Your task to perform on an android device: see sites visited before in the chrome app Image 0: 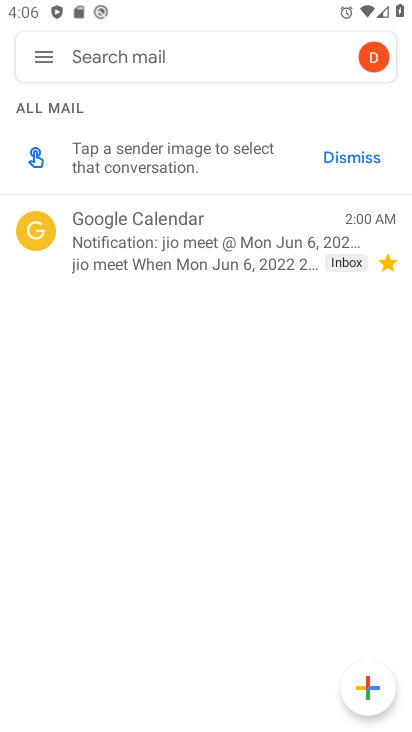
Step 0: press home button
Your task to perform on an android device: see sites visited before in the chrome app Image 1: 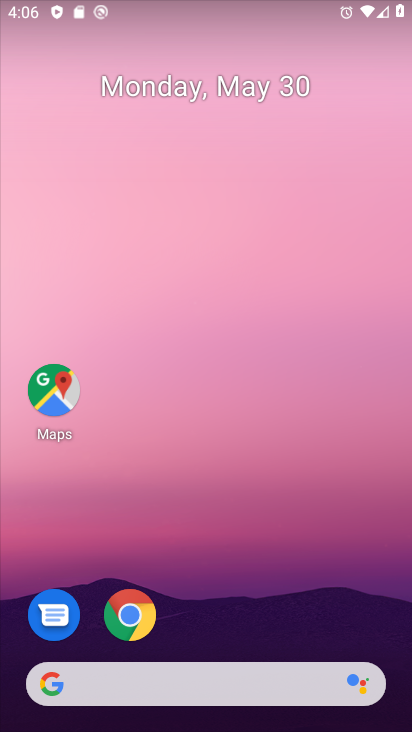
Step 1: click (137, 617)
Your task to perform on an android device: see sites visited before in the chrome app Image 2: 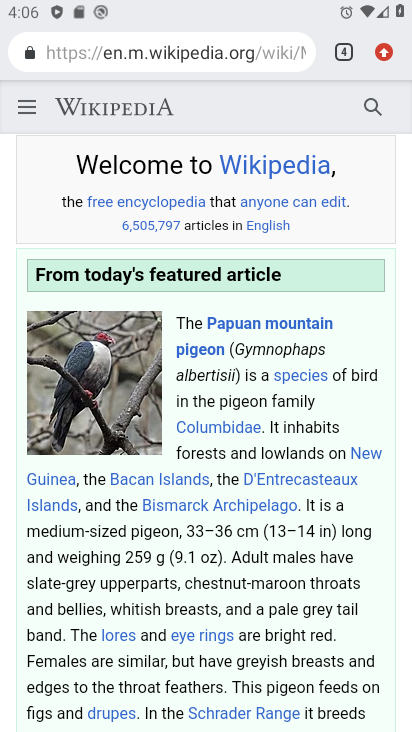
Step 2: click (382, 52)
Your task to perform on an android device: see sites visited before in the chrome app Image 3: 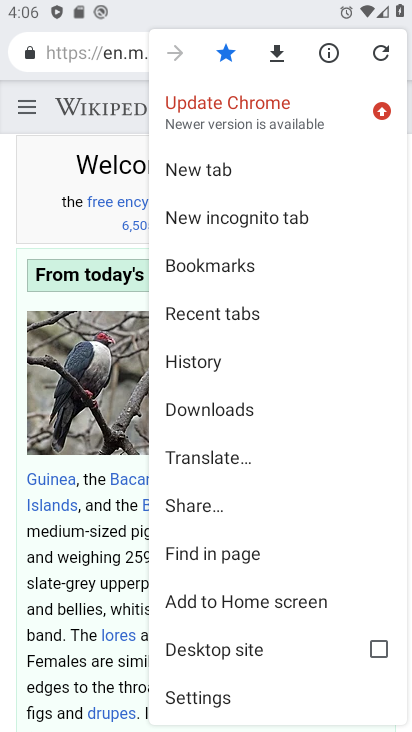
Step 3: click (230, 307)
Your task to perform on an android device: see sites visited before in the chrome app Image 4: 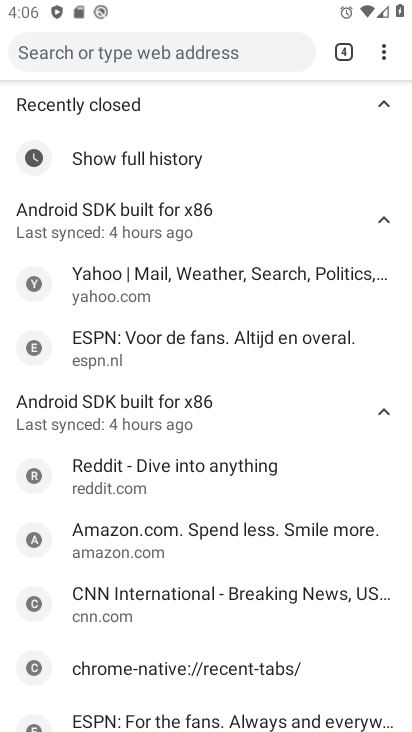
Step 4: task complete